Your task to perform on an android device: turn pop-ups off in chrome Image 0: 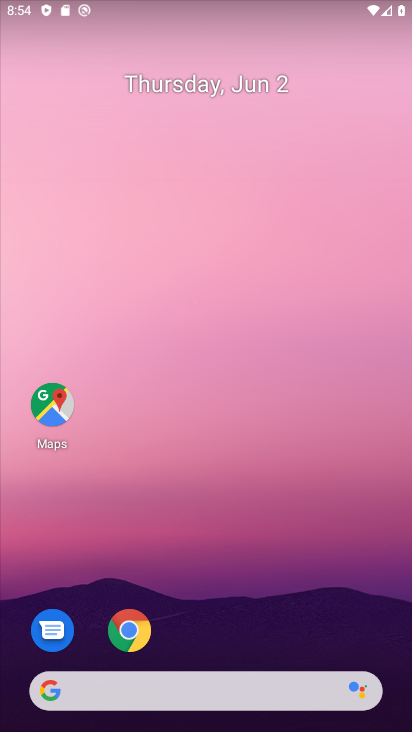
Step 0: click (128, 631)
Your task to perform on an android device: turn pop-ups off in chrome Image 1: 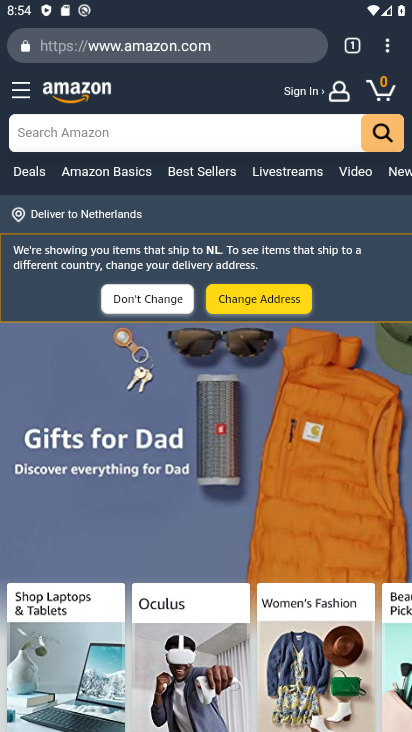
Step 1: click (383, 43)
Your task to perform on an android device: turn pop-ups off in chrome Image 2: 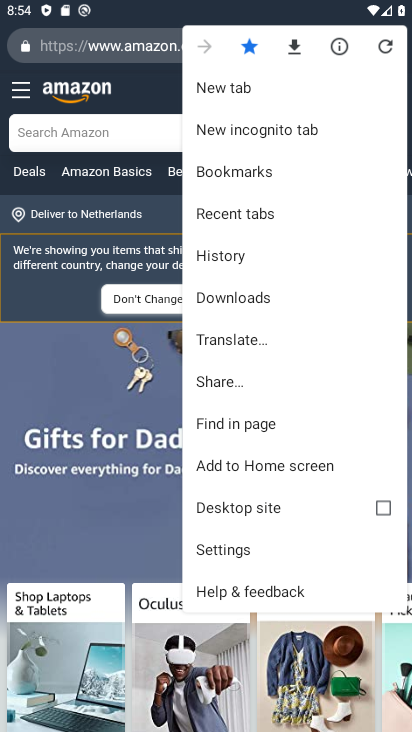
Step 2: click (264, 552)
Your task to perform on an android device: turn pop-ups off in chrome Image 3: 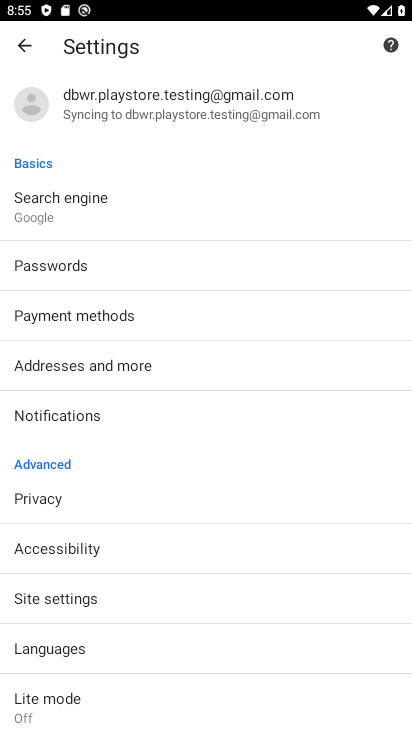
Step 3: click (204, 601)
Your task to perform on an android device: turn pop-ups off in chrome Image 4: 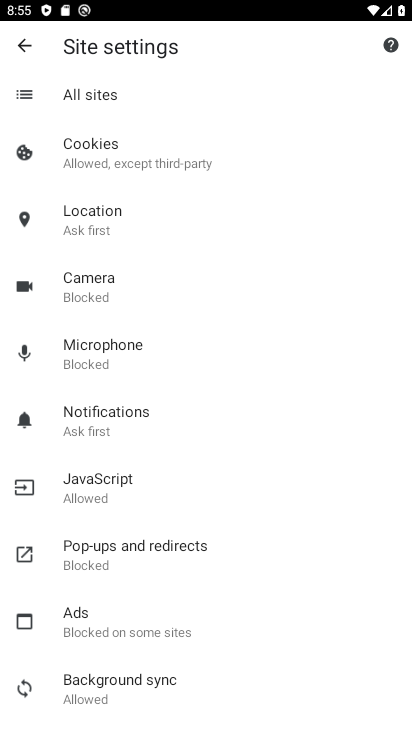
Step 4: click (209, 554)
Your task to perform on an android device: turn pop-ups off in chrome Image 5: 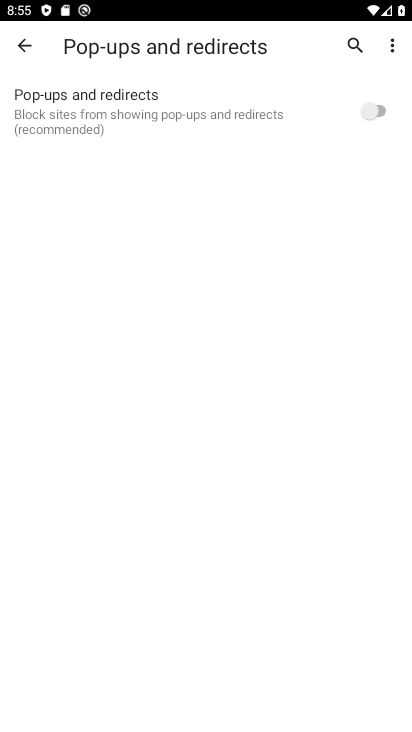
Step 5: task complete